Your task to perform on an android device: delete a single message in the gmail app Image 0: 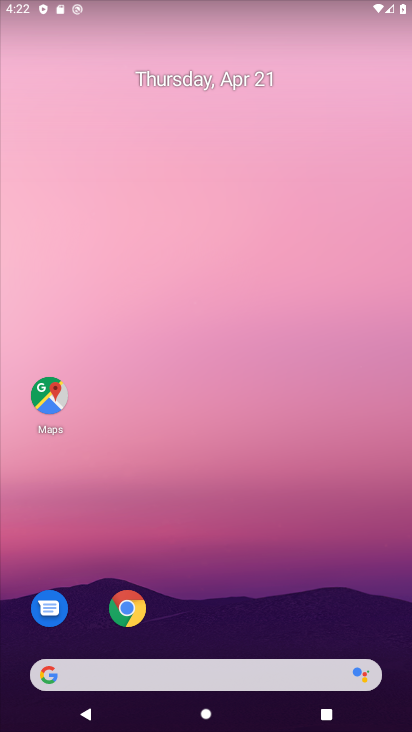
Step 0: drag from (280, 623) to (345, 210)
Your task to perform on an android device: delete a single message in the gmail app Image 1: 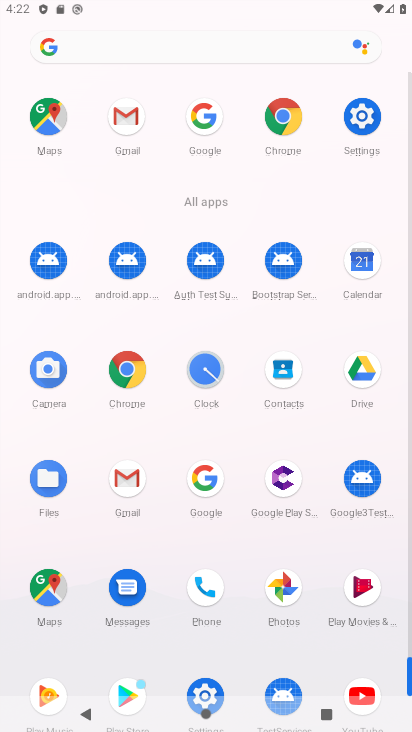
Step 1: click (135, 492)
Your task to perform on an android device: delete a single message in the gmail app Image 2: 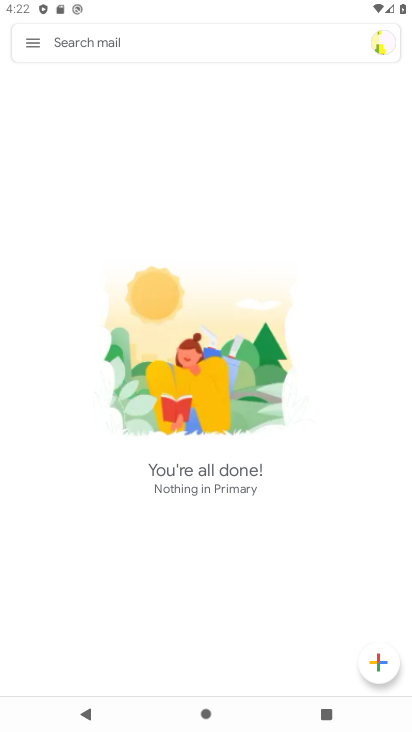
Step 2: click (33, 47)
Your task to perform on an android device: delete a single message in the gmail app Image 3: 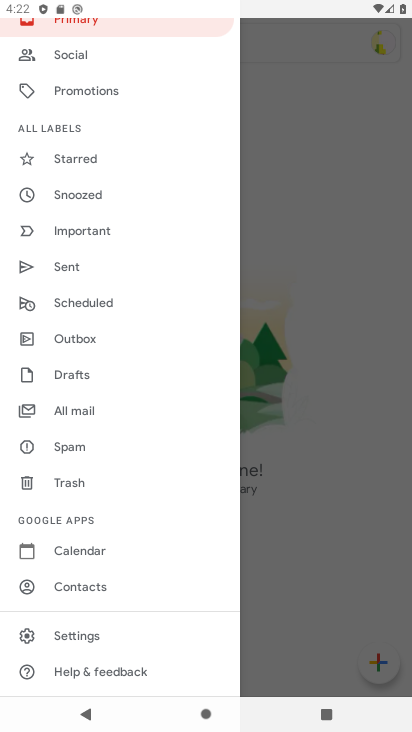
Step 3: click (79, 409)
Your task to perform on an android device: delete a single message in the gmail app Image 4: 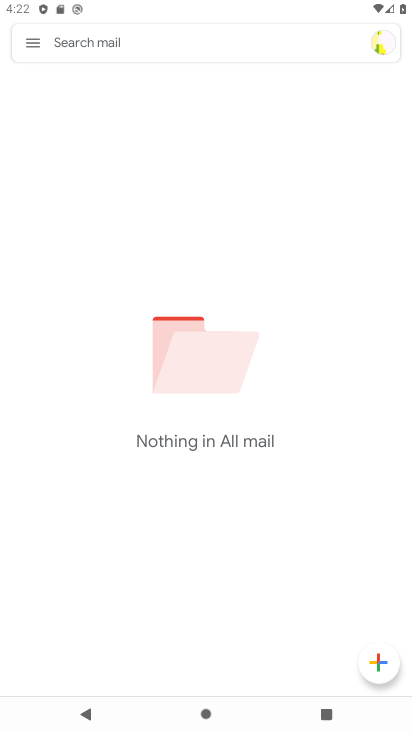
Step 4: task complete